Your task to perform on an android device: toggle location history Image 0: 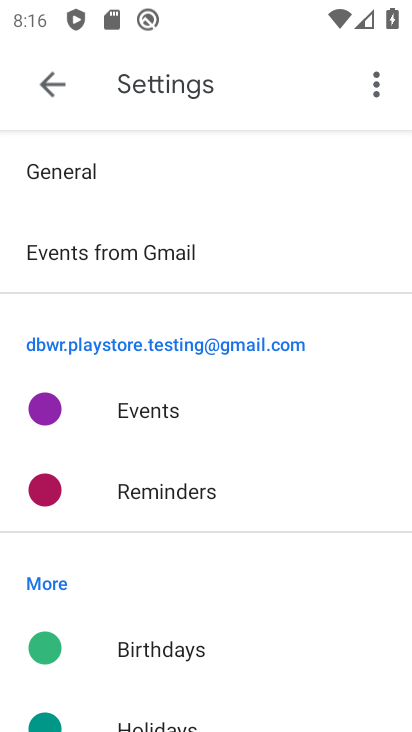
Step 0: press home button
Your task to perform on an android device: toggle location history Image 1: 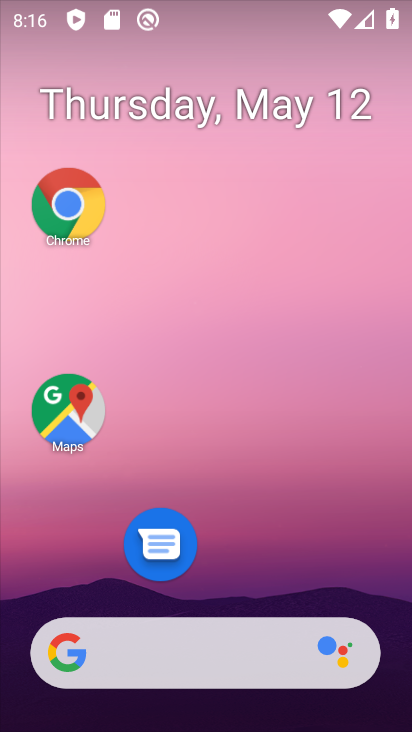
Step 1: drag from (190, 604) to (237, 5)
Your task to perform on an android device: toggle location history Image 2: 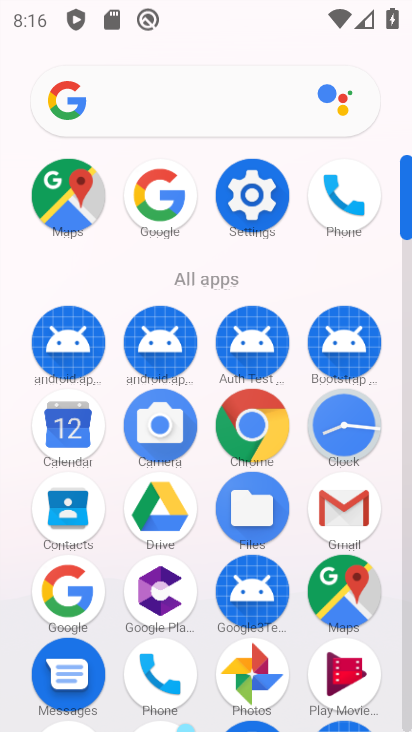
Step 2: click (255, 180)
Your task to perform on an android device: toggle location history Image 3: 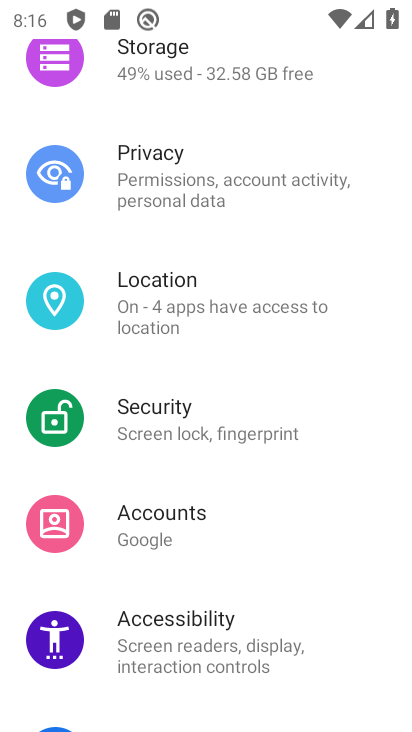
Step 3: click (225, 317)
Your task to perform on an android device: toggle location history Image 4: 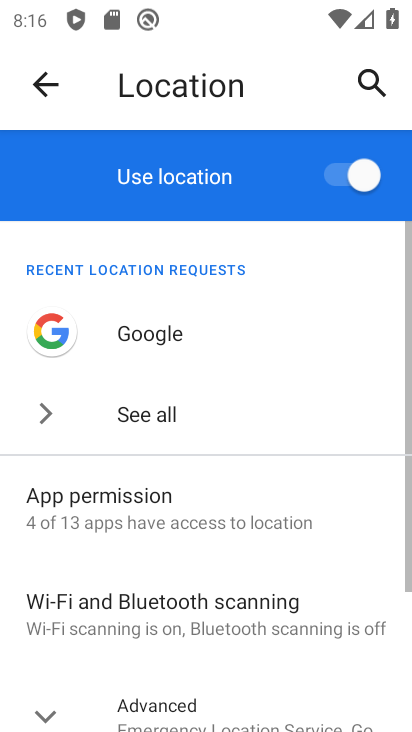
Step 4: drag from (217, 667) to (205, 249)
Your task to perform on an android device: toggle location history Image 5: 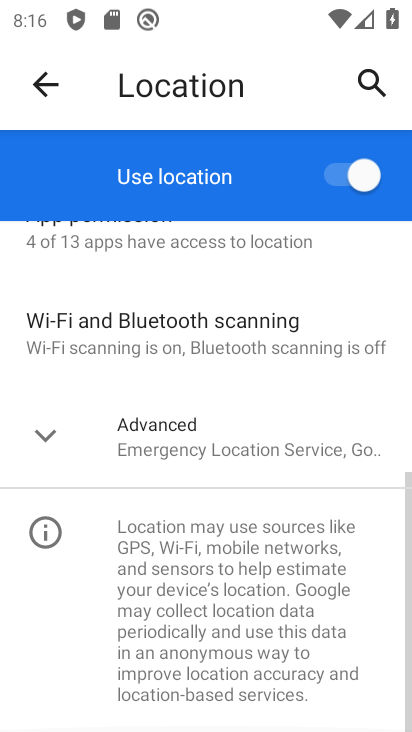
Step 5: click (145, 452)
Your task to perform on an android device: toggle location history Image 6: 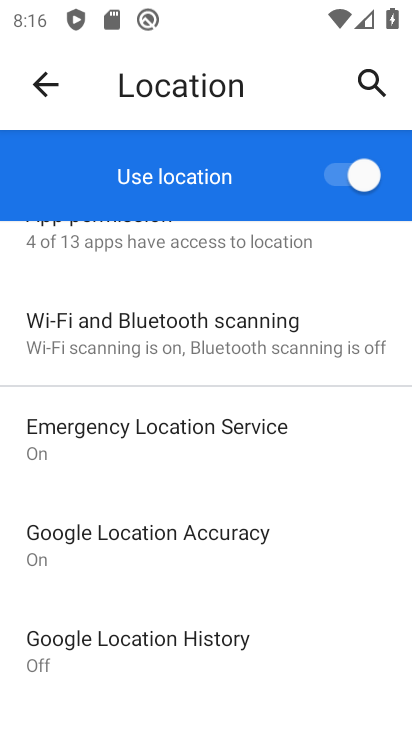
Step 6: click (145, 614)
Your task to perform on an android device: toggle location history Image 7: 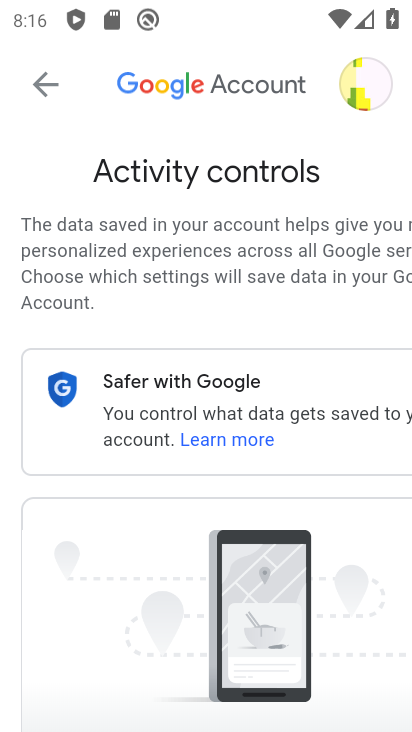
Step 7: drag from (325, 647) to (216, 120)
Your task to perform on an android device: toggle location history Image 8: 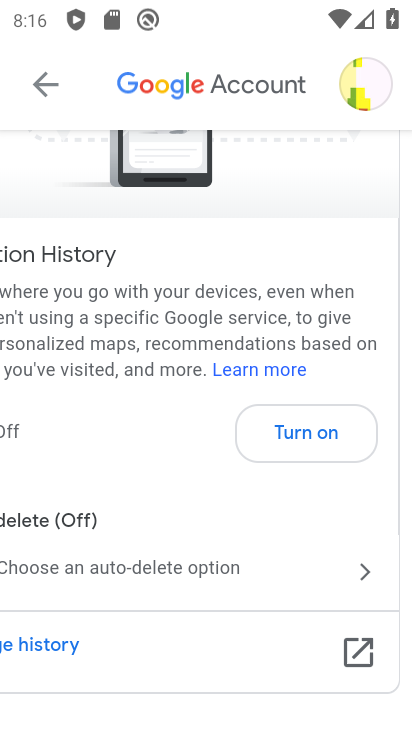
Step 8: click (315, 443)
Your task to perform on an android device: toggle location history Image 9: 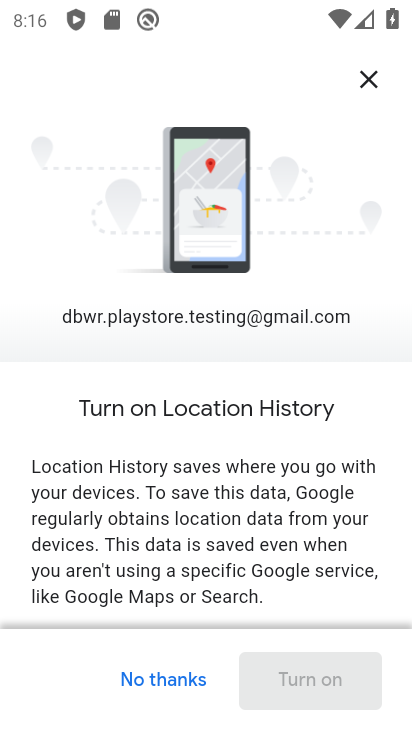
Step 9: drag from (327, 533) to (239, 93)
Your task to perform on an android device: toggle location history Image 10: 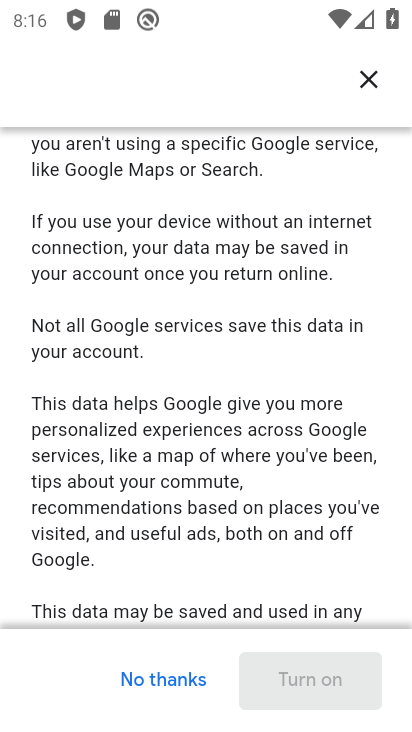
Step 10: drag from (256, 496) to (146, 86)
Your task to perform on an android device: toggle location history Image 11: 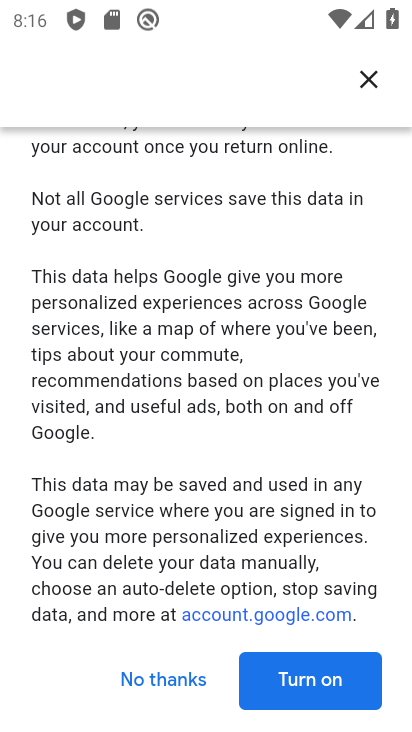
Step 11: click (308, 688)
Your task to perform on an android device: toggle location history Image 12: 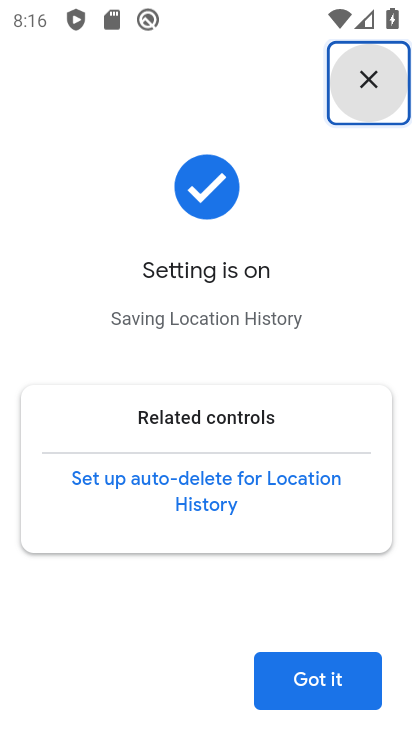
Step 12: click (344, 701)
Your task to perform on an android device: toggle location history Image 13: 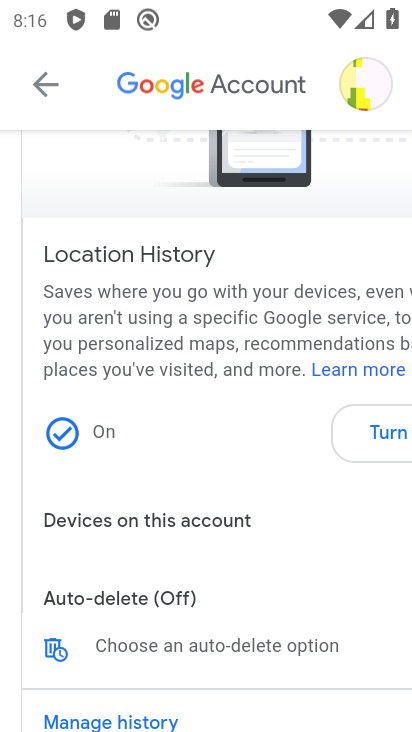
Step 13: task complete